Your task to perform on an android device: Search for seafood restaurants on Google Maps Image 0: 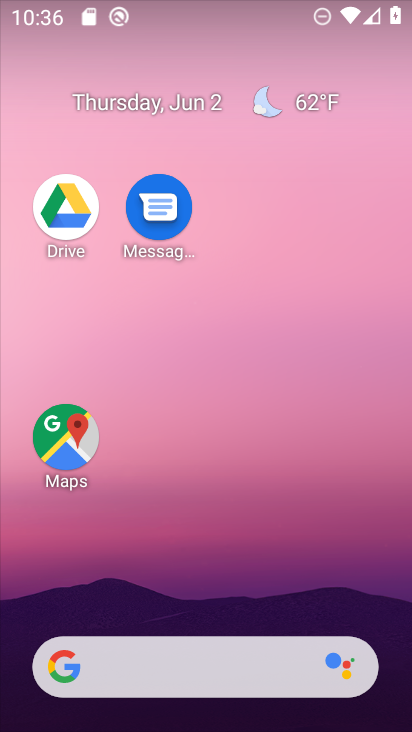
Step 0: drag from (203, 626) to (181, 35)
Your task to perform on an android device: Search for seafood restaurants on Google Maps Image 1: 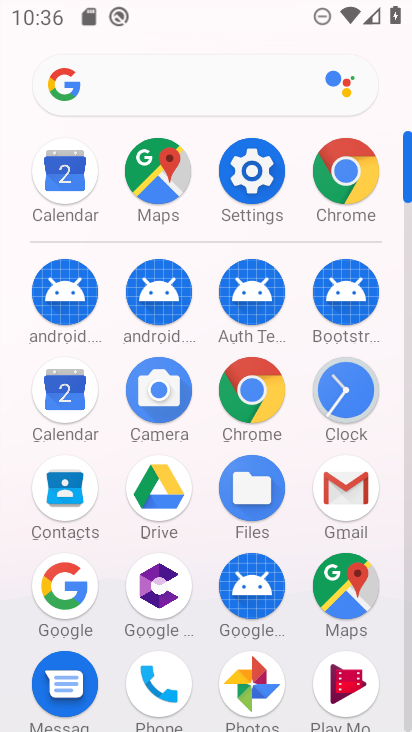
Step 1: click (369, 588)
Your task to perform on an android device: Search for seafood restaurants on Google Maps Image 2: 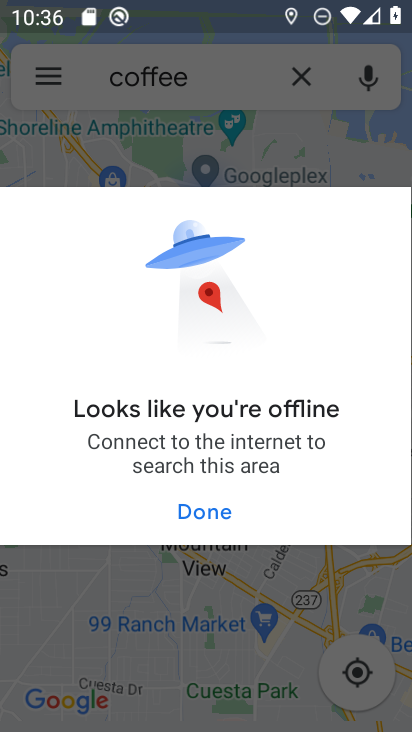
Step 2: click (214, 517)
Your task to perform on an android device: Search for seafood restaurants on Google Maps Image 3: 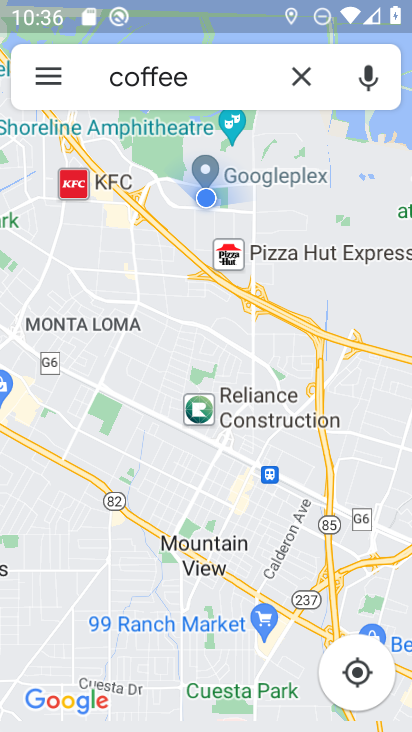
Step 3: click (291, 69)
Your task to perform on an android device: Search for seafood restaurants on Google Maps Image 4: 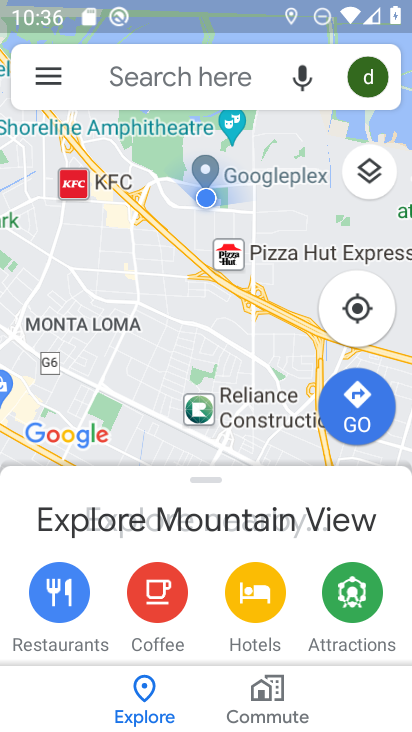
Step 4: click (183, 90)
Your task to perform on an android device: Search for seafood restaurants on Google Maps Image 5: 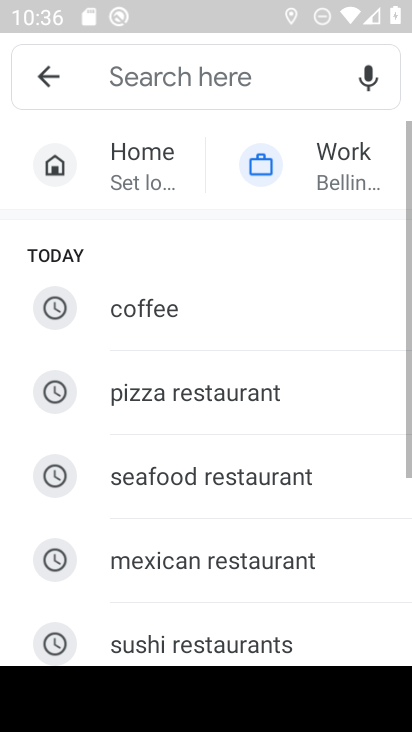
Step 5: click (158, 493)
Your task to perform on an android device: Search for seafood restaurants on Google Maps Image 6: 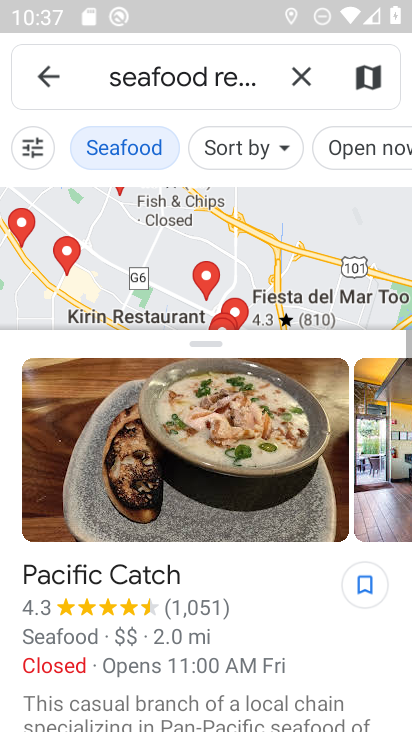
Step 6: task complete